Your task to perform on an android device: turn pop-ups off in chrome Image 0: 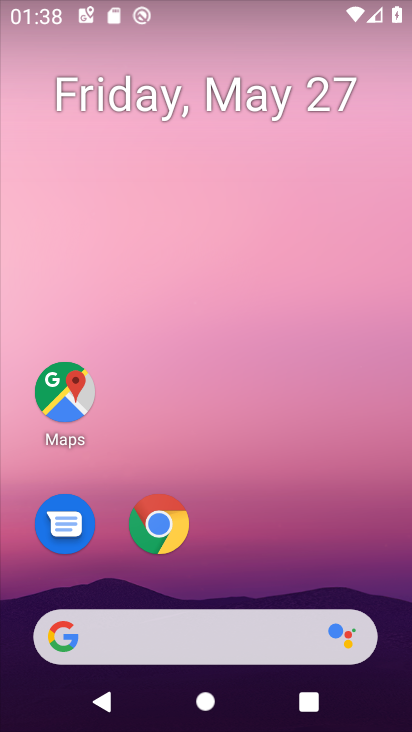
Step 0: click (158, 518)
Your task to perform on an android device: turn pop-ups off in chrome Image 1: 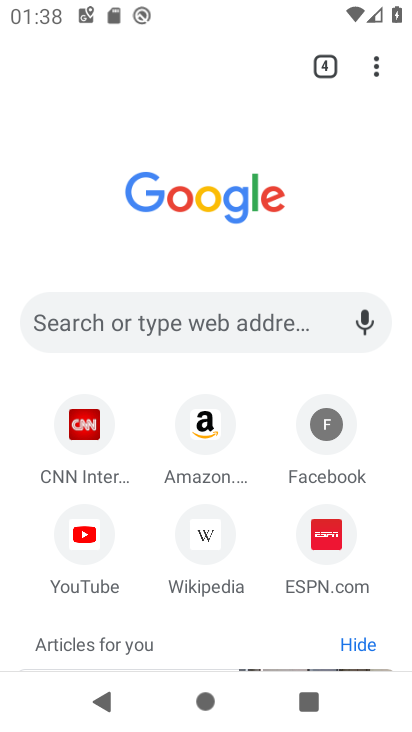
Step 1: click (374, 66)
Your task to perform on an android device: turn pop-ups off in chrome Image 2: 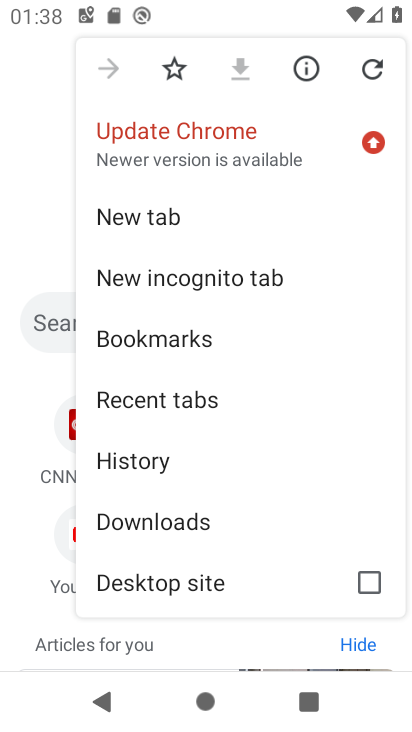
Step 2: drag from (272, 451) to (262, 193)
Your task to perform on an android device: turn pop-ups off in chrome Image 3: 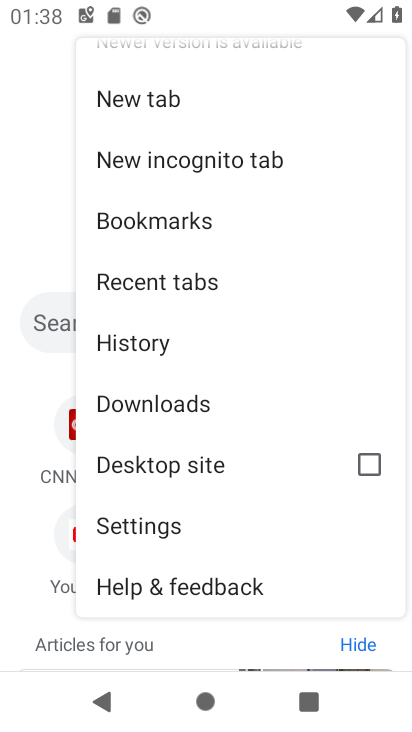
Step 3: click (164, 519)
Your task to perform on an android device: turn pop-ups off in chrome Image 4: 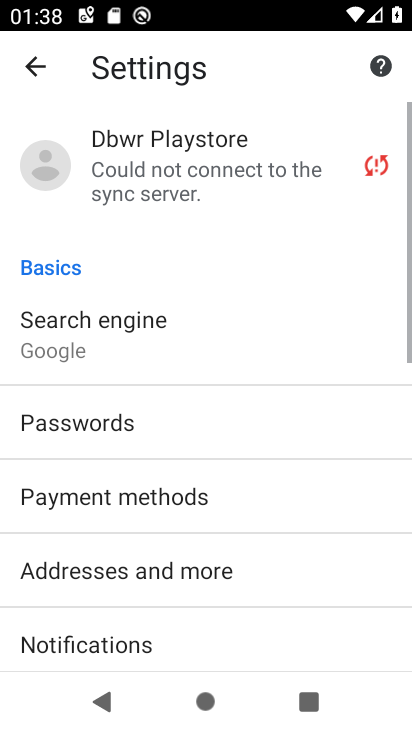
Step 4: drag from (251, 526) to (265, 109)
Your task to perform on an android device: turn pop-ups off in chrome Image 5: 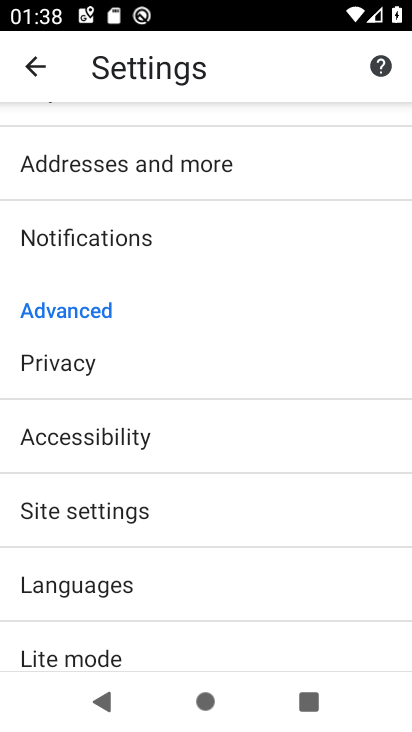
Step 5: click (202, 521)
Your task to perform on an android device: turn pop-ups off in chrome Image 6: 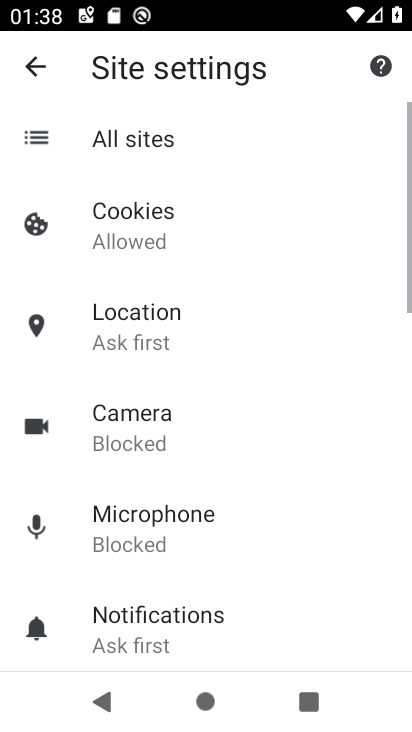
Step 6: drag from (255, 613) to (253, 242)
Your task to perform on an android device: turn pop-ups off in chrome Image 7: 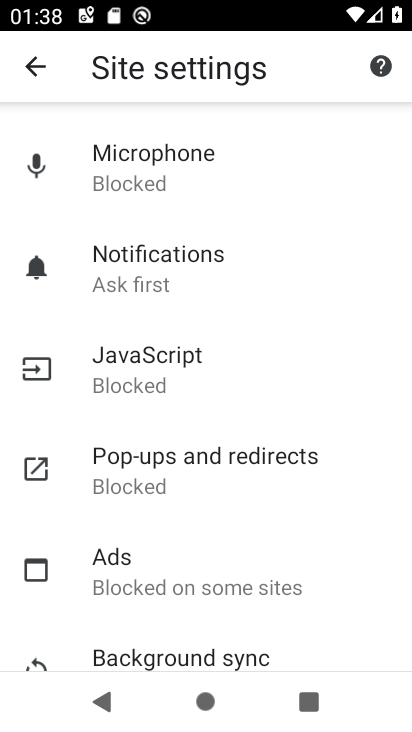
Step 7: click (252, 463)
Your task to perform on an android device: turn pop-ups off in chrome Image 8: 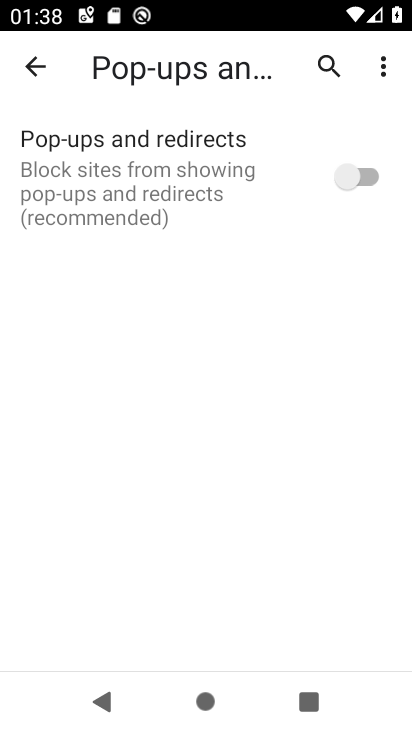
Step 8: task complete